Your task to perform on an android device: turn on wifi Image 0: 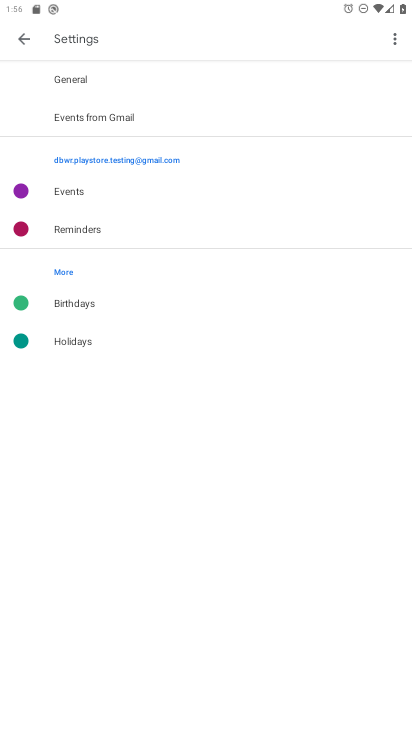
Step 0: press home button
Your task to perform on an android device: turn on wifi Image 1: 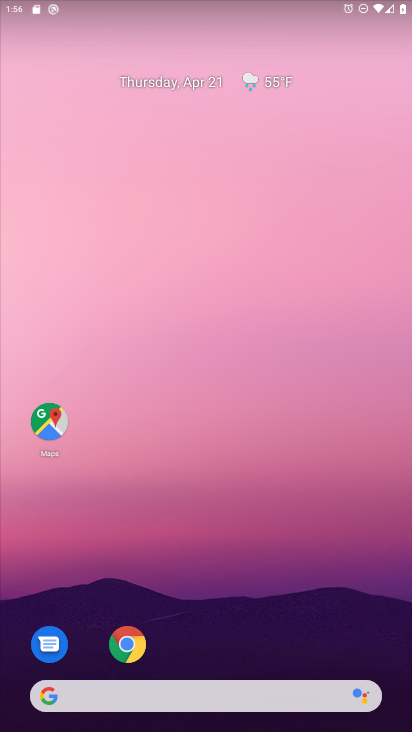
Step 1: drag from (222, 644) to (190, 47)
Your task to perform on an android device: turn on wifi Image 2: 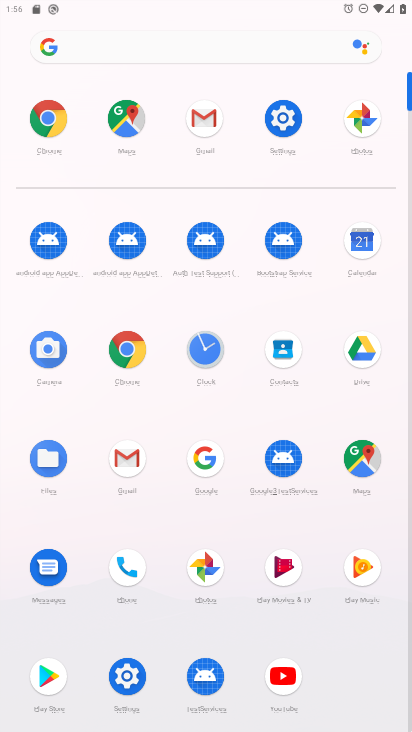
Step 2: click (267, 117)
Your task to perform on an android device: turn on wifi Image 3: 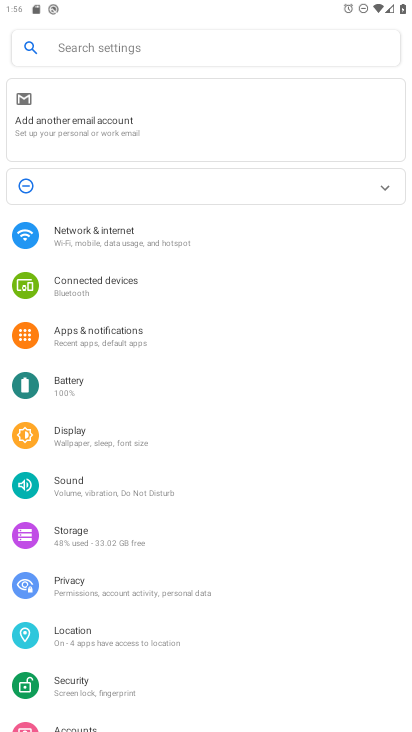
Step 3: click (207, 247)
Your task to perform on an android device: turn on wifi Image 4: 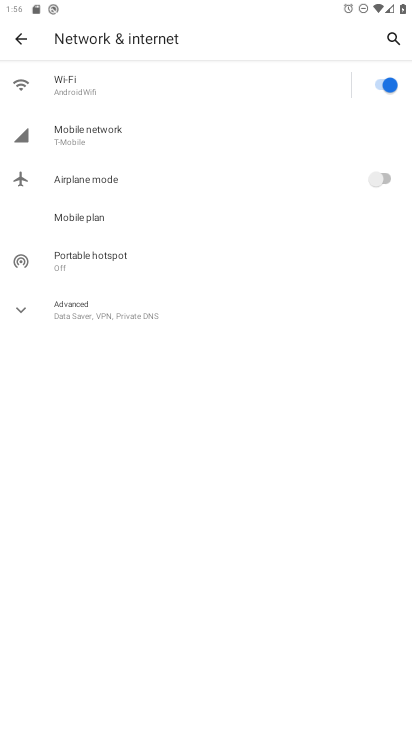
Step 4: task complete